Your task to perform on an android device: Open Chrome and go to the settings page Image 0: 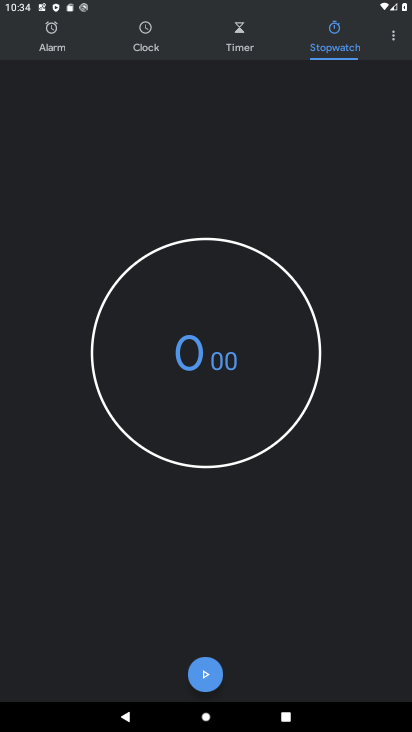
Step 0: press home button
Your task to perform on an android device: Open Chrome and go to the settings page Image 1: 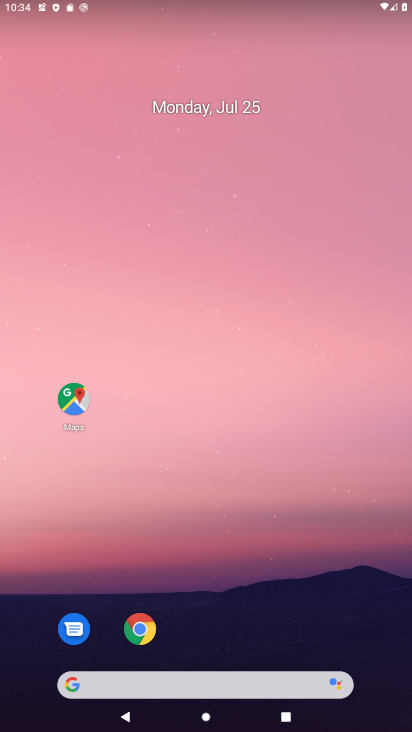
Step 1: click (143, 627)
Your task to perform on an android device: Open Chrome and go to the settings page Image 2: 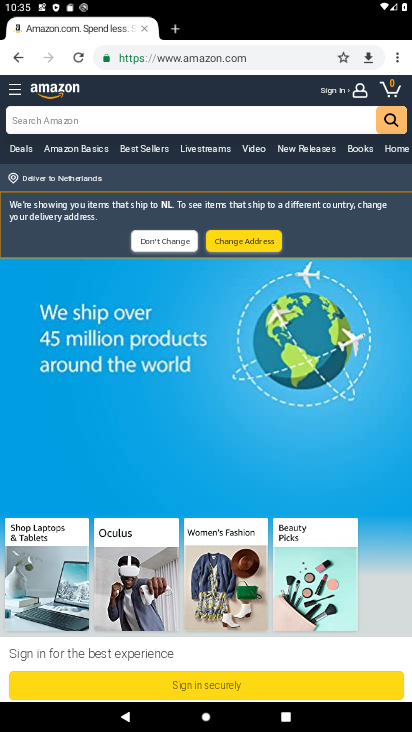
Step 2: click (400, 66)
Your task to perform on an android device: Open Chrome and go to the settings page Image 3: 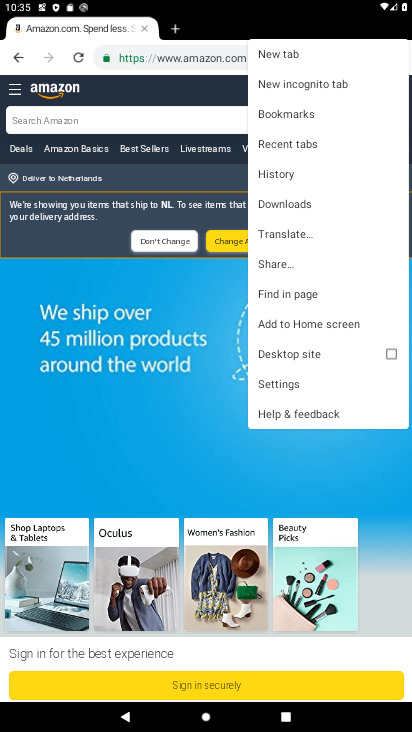
Step 3: click (279, 383)
Your task to perform on an android device: Open Chrome and go to the settings page Image 4: 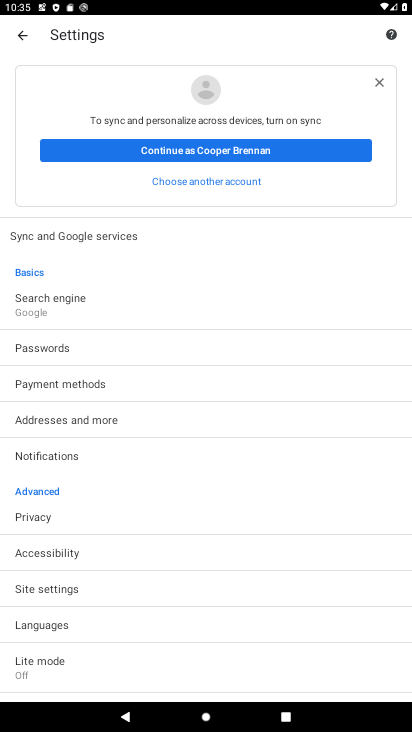
Step 4: task complete